Your task to perform on an android device: all mails in gmail Image 0: 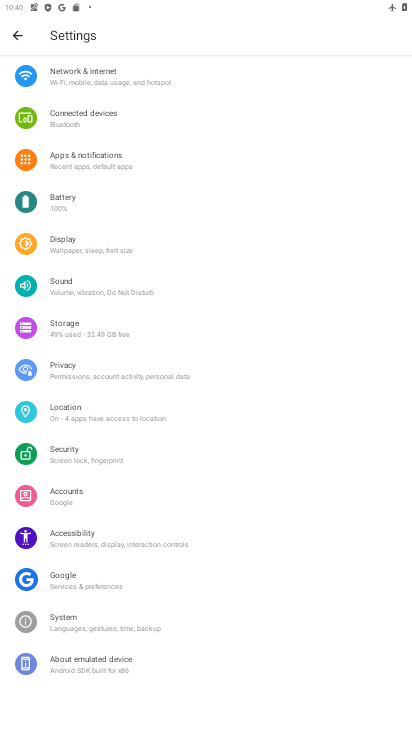
Step 0: press home button
Your task to perform on an android device: all mails in gmail Image 1: 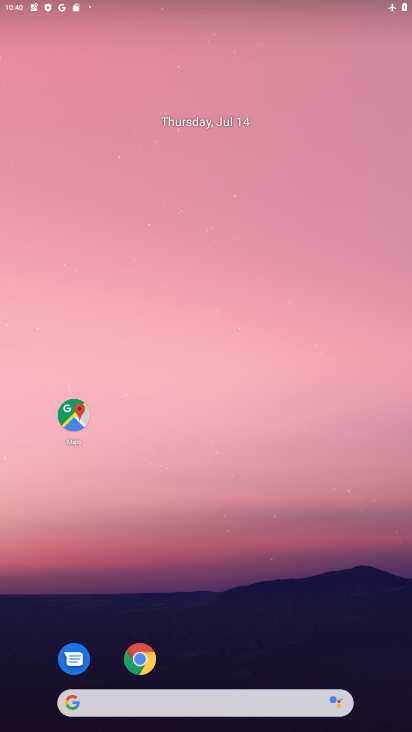
Step 1: drag from (332, 609) to (322, 149)
Your task to perform on an android device: all mails in gmail Image 2: 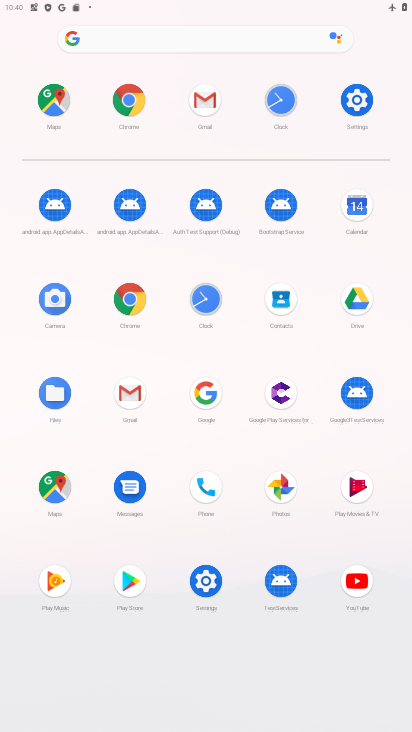
Step 2: click (211, 102)
Your task to perform on an android device: all mails in gmail Image 3: 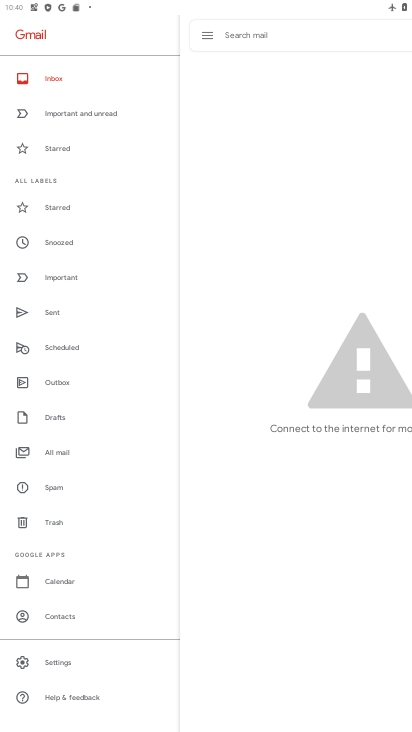
Step 3: click (54, 460)
Your task to perform on an android device: all mails in gmail Image 4: 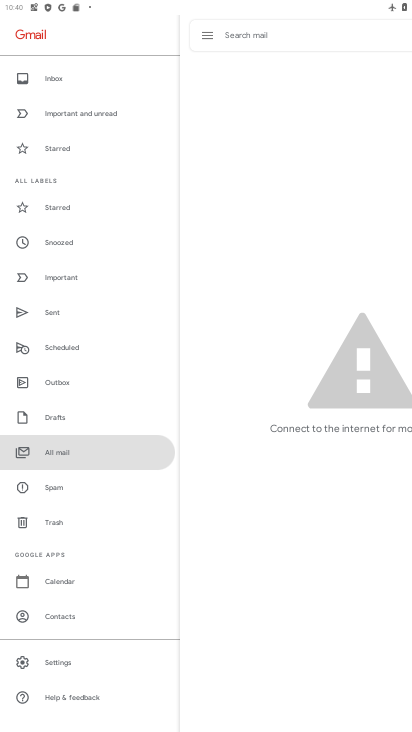
Step 4: task complete